Your task to perform on an android device: Open accessibility settings Image 0: 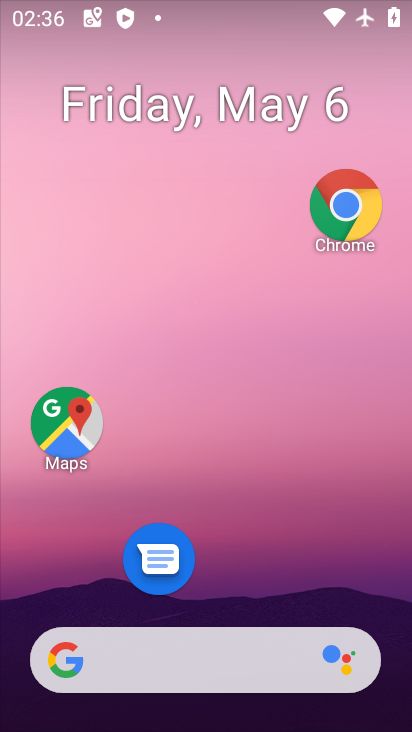
Step 0: drag from (141, 677) to (362, 31)
Your task to perform on an android device: Open accessibility settings Image 1: 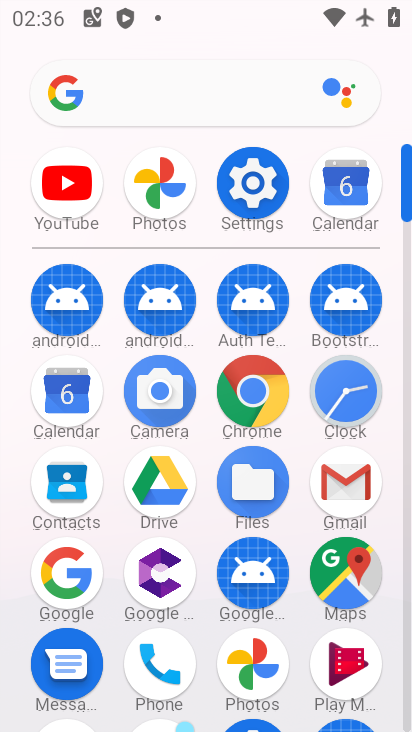
Step 1: click (266, 192)
Your task to perform on an android device: Open accessibility settings Image 2: 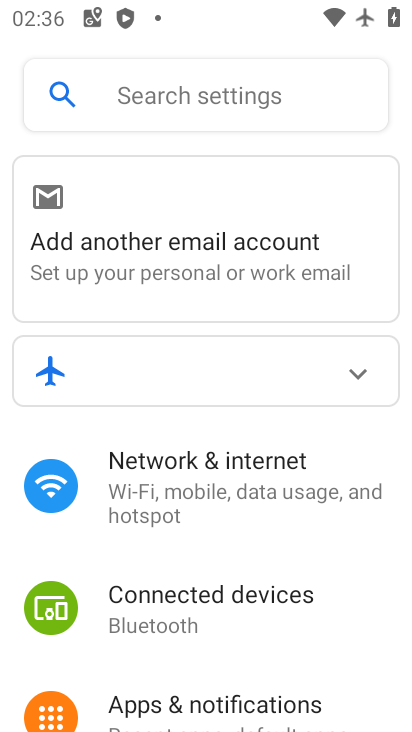
Step 2: drag from (185, 656) to (338, 115)
Your task to perform on an android device: Open accessibility settings Image 3: 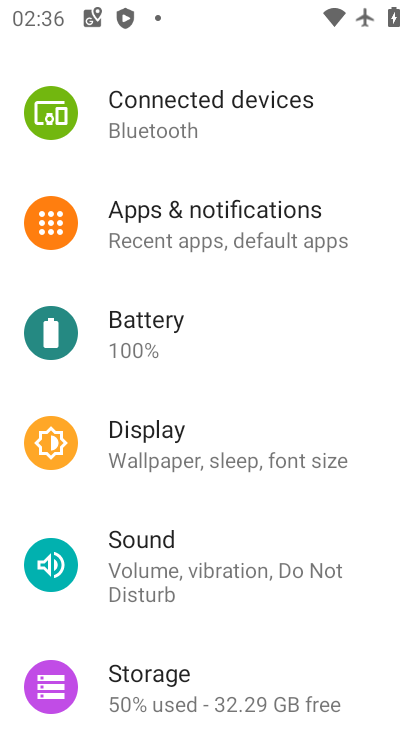
Step 3: drag from (222, 673) to (312, 101)
Your task to perform on an android device: Open accessibility settings Image 4: 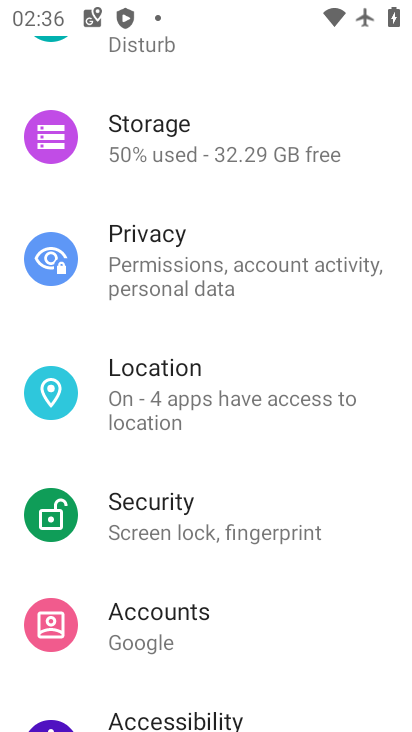
Step 4: drag from (227, 683) to (294, 365)
Your task to perform on an android device: Open accessibility settings Image 5: 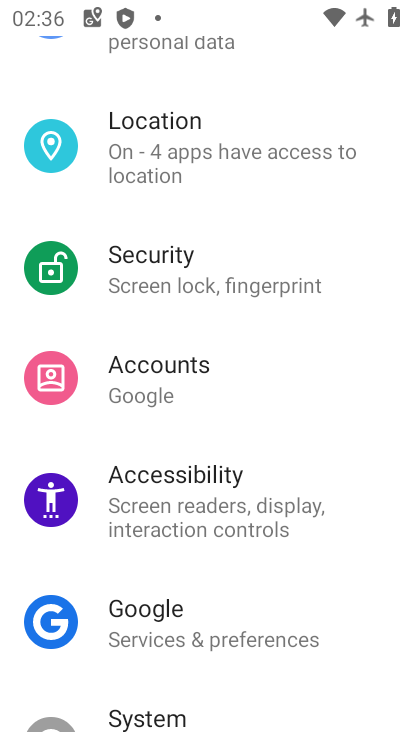
Step 5: click (202, 492)
Your task to perform on an android device: Open accessibility settings Image 6: 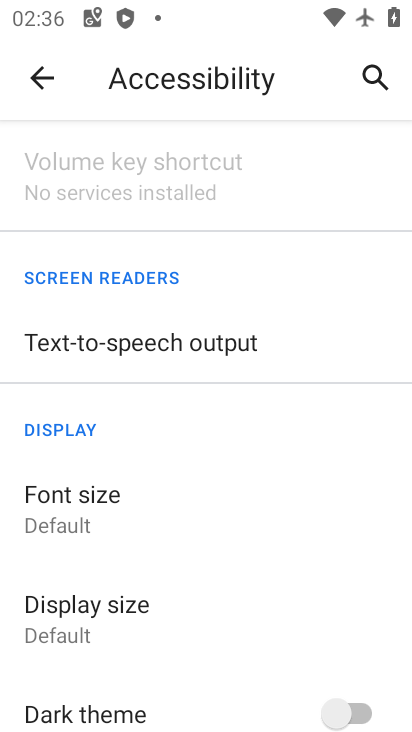
Step 6: task complete